Your task to perform on an android device: Search for Italian restaurants on Maps Image 0: 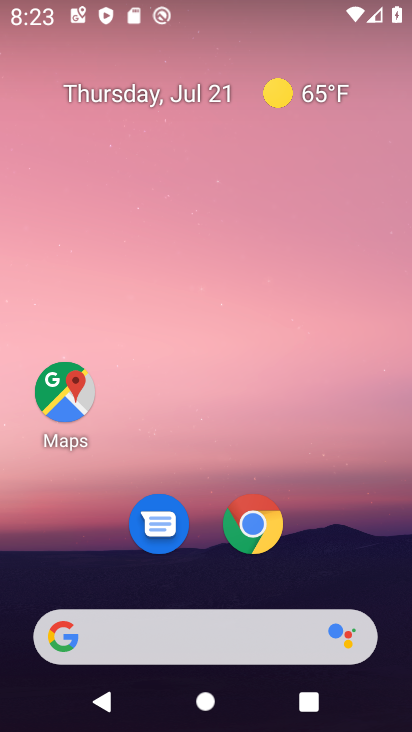
Step 0: click (49, 394)
Your task to perform on an android device: Search for Italian restaurants on Maps Image 1: 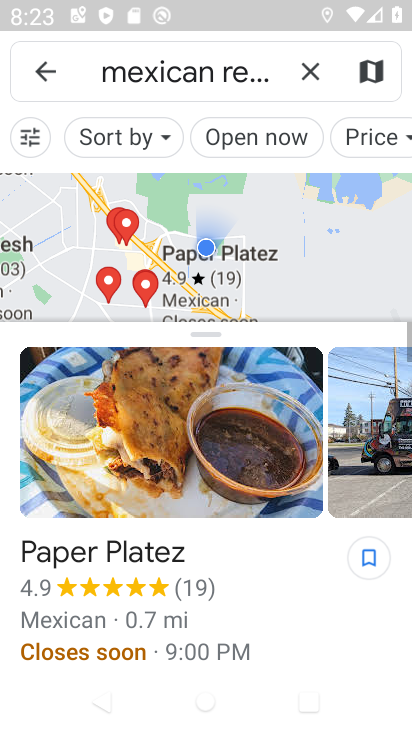
Step 1: click (316, 70)
Your task to perform on an android device: Search for Italian restaurants on Maps Image 2: 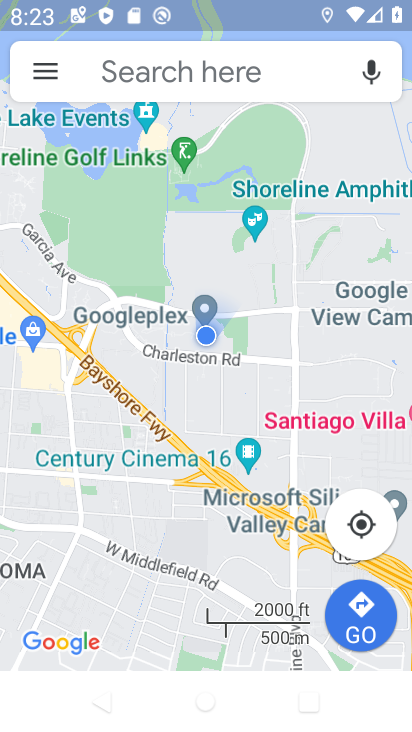
Step 2: click (266, 69)
Your task to perform on an android device: Search for Italian restaurants on Maps Image 3: 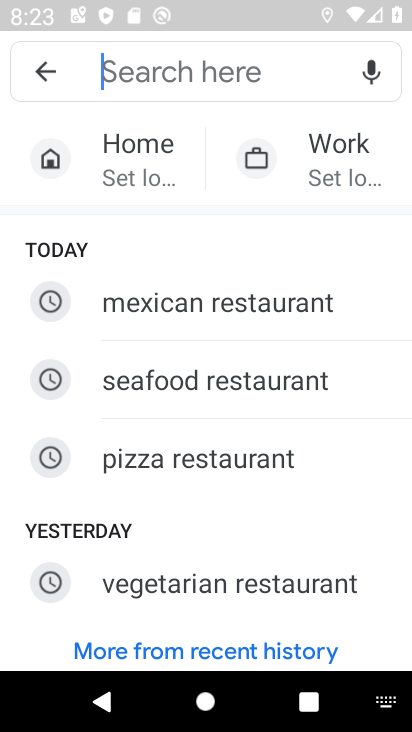
Step 3: type "italian restaurants"
Your task to perform on an android device: Search for Italian restaurants on Maps Image 4: 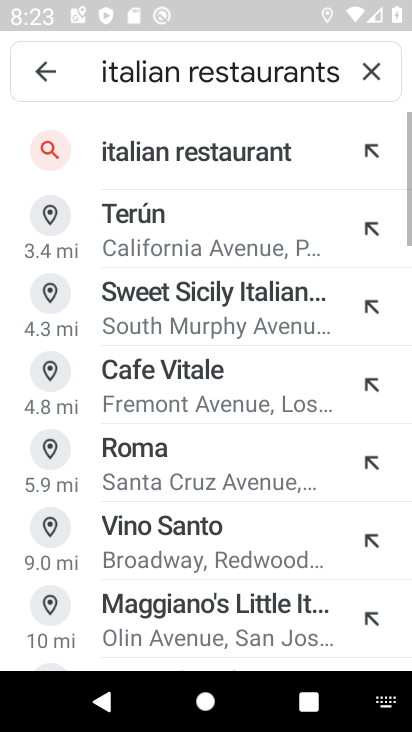
Step 4: click (247, 162)
Your task to perform on an android device: Search for Italian restaurants on Maps Image 5: 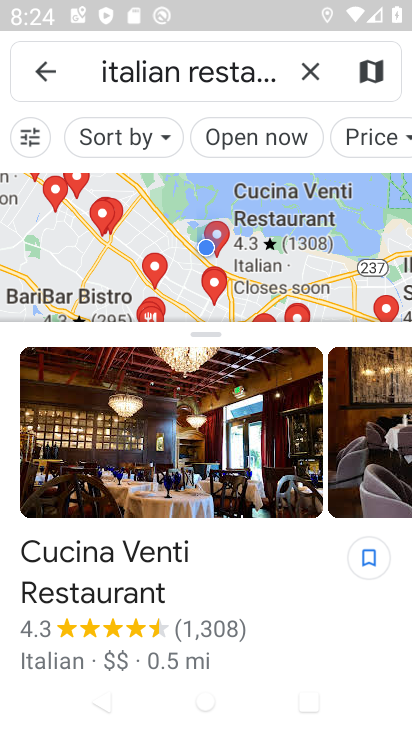
Step 5: task complete